Your task to perform on an android device: toggle priority inbox in the gmail app Image 0: 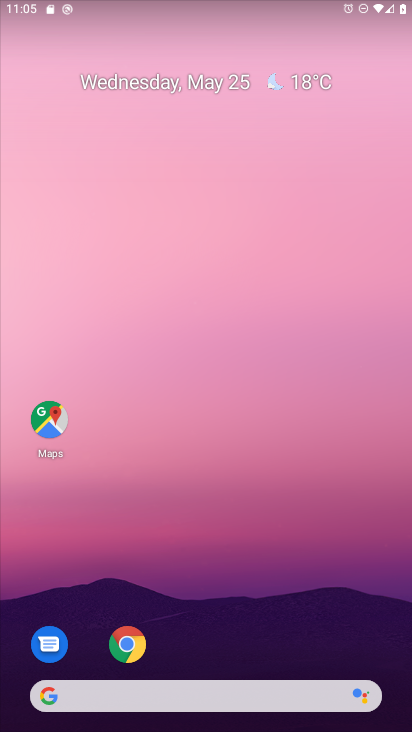
Step 0: press home button
Your task to perform on an android device: toggle priority inbox in the gmail app Image 1: 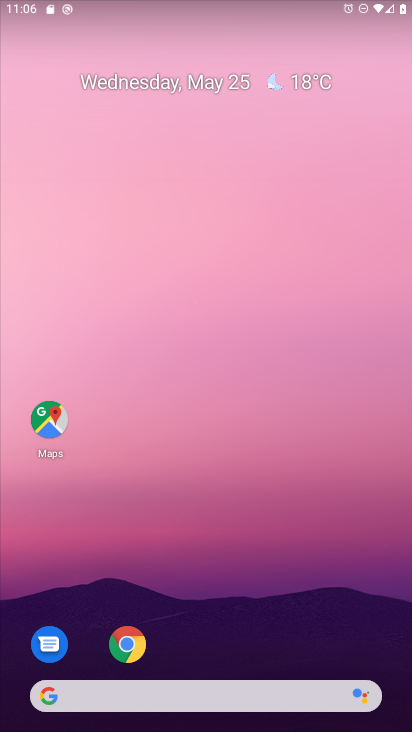
Step 1: drag from (219, 665) to (233, 25)
Your task to perform on an android device: toggle priority inbox in the gmail app Image 2: 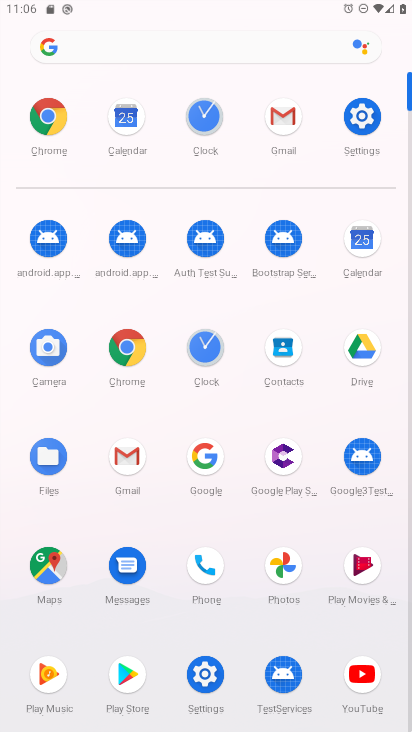
Step 2: click (283, 107)
Your task to perform on an android device: toggle priority inbox in the gmail app Image 3: 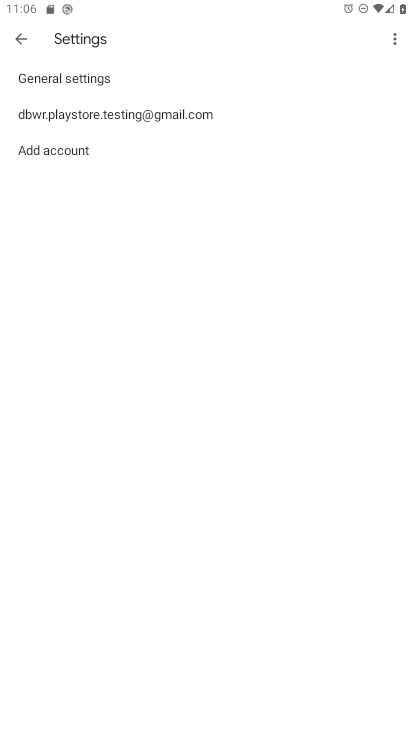
Step 3: click (227, 112)
Your task to perform on an android device: toggle priority inbox in the gmail app Image 4: 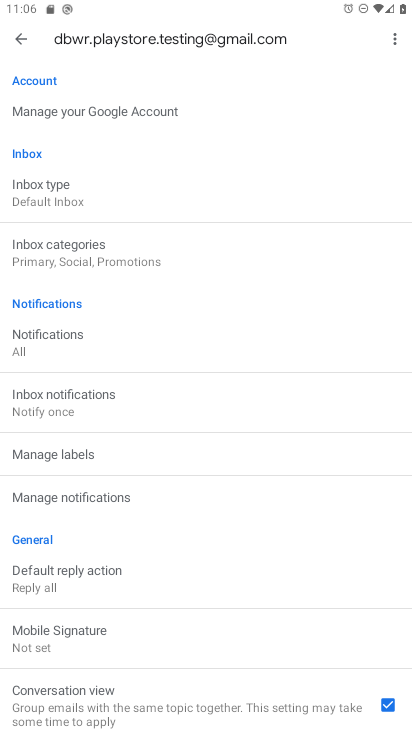
Step 4: click (102, 187)
Your task to perform on an android device: toggle priority inbox in the gmail app Image 5: 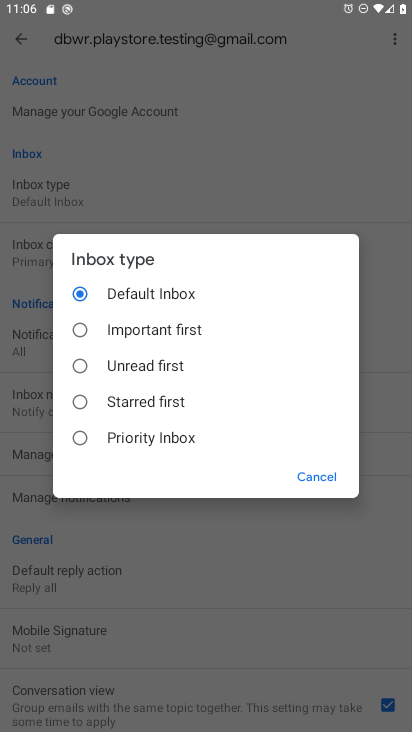
Step 5: click (84, 432)
Your task to perform on an android device: toggle priority inbox in the gmail app Image 6: 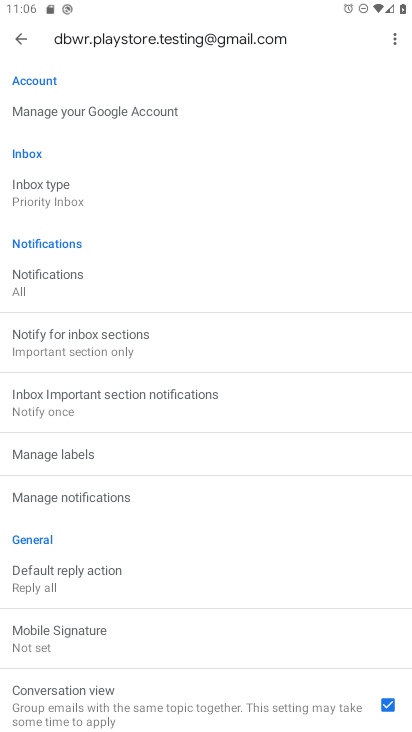
Step 6: task complete